Your task to perform on an android device: all mails in gmail Image 0: 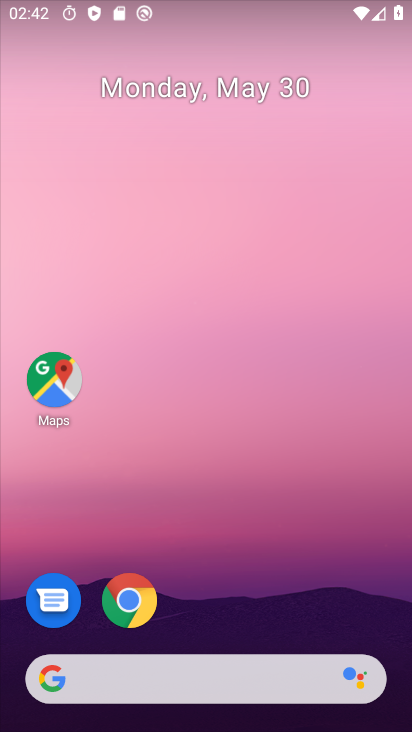
Step 0: drag from (236, 617) to (230, 101)
Your task to perform on an android device: all mails in gmail Image 1: 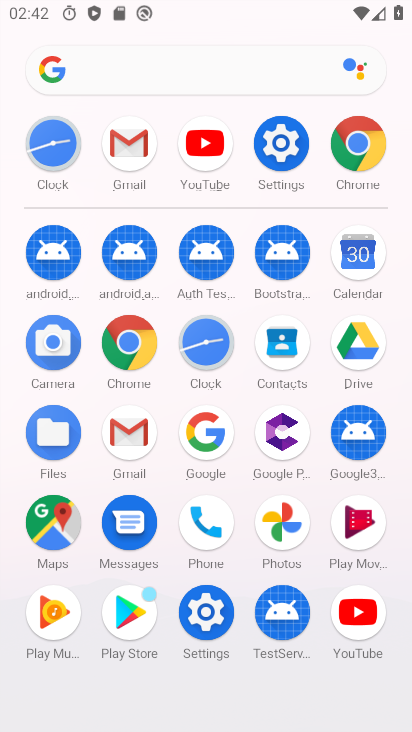
Step 1: click (120, 146)
Your task to perform on an android device: all mails in gmail Image 2: 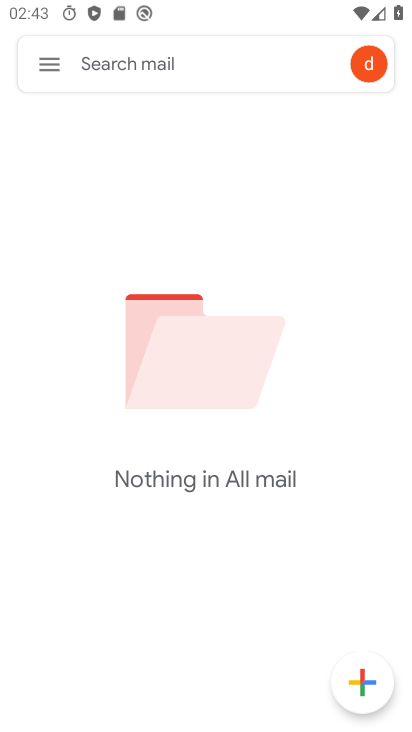
Step 2: task complete